Your task to perform on an android device: Go to battery settings Image 0: 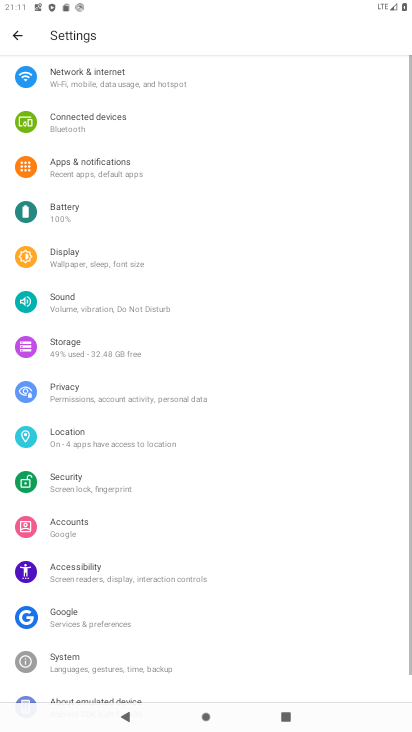
Step 0: click (70, 205)
Your task to perform on an android device: Go to battery settings Image 1: 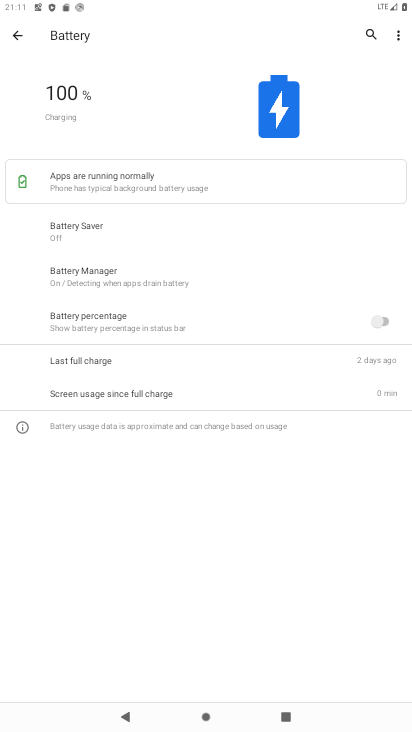
Step 1: task complete